Your task to perform on an android device: turn on translation in the chrome app Image 0: 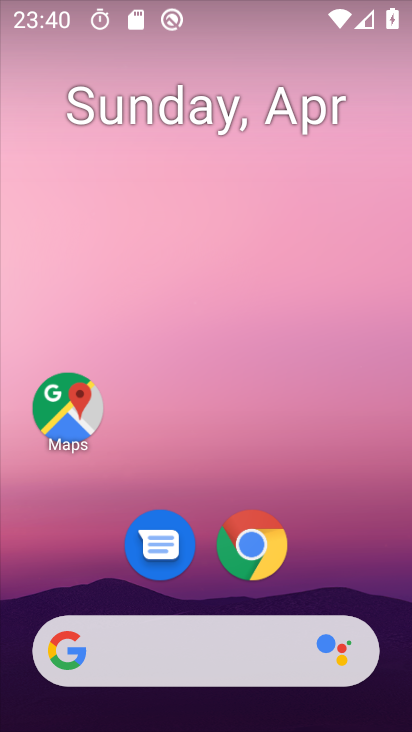
Step 0: drag from (344, 547) to (379, 200)
Your task to perform on an android device: turn on translation in the chrome app Image 1: 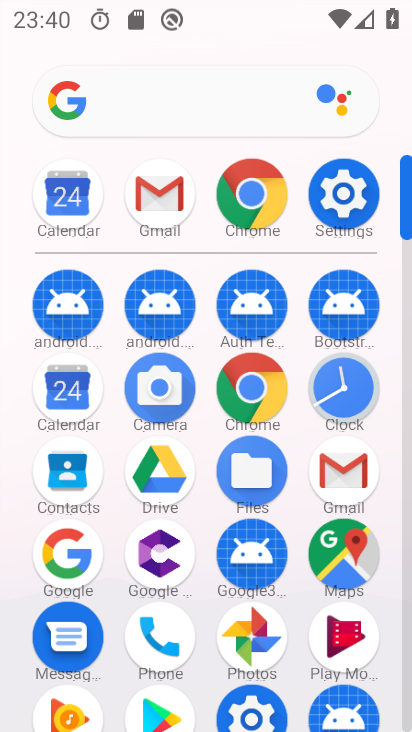
Step 1: click (261, 189)
Your task to perform on an android device: turn on translation in the chrome app Image 2: 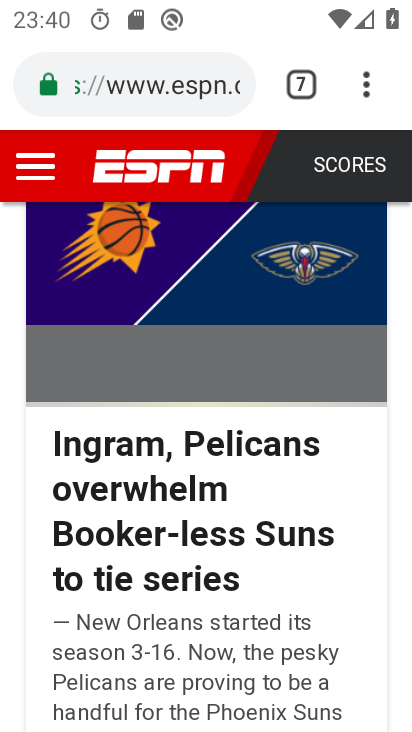
Step 2: click (381, 84)
Your task to perform on an android device: turn on translation in the chrome app Image 3: 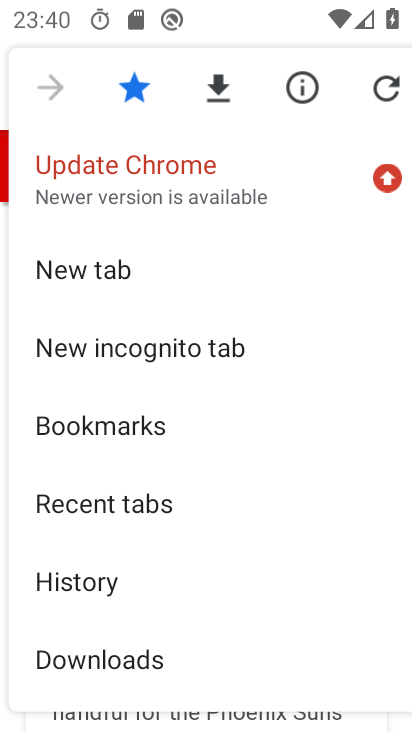
Step 3: drag from (221, 586) to (230, 227)
Your task to perform on an android device: turn on translation in the chrome app Image 4: 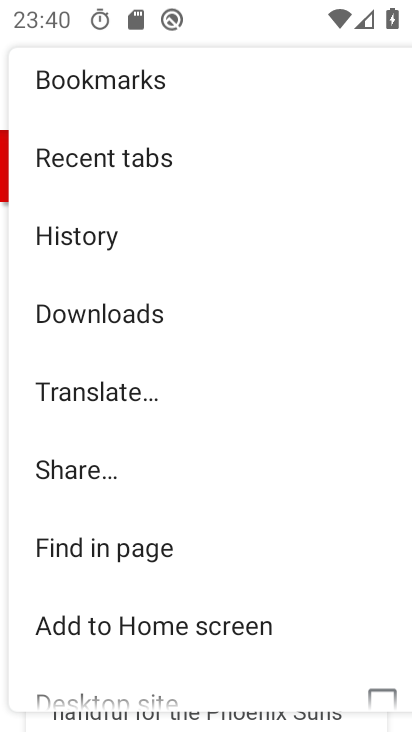
Step 4: drag from (147, 607) to (218, 152)
Your task to perform on an android device: turn on translation in the chrome app Image 5: 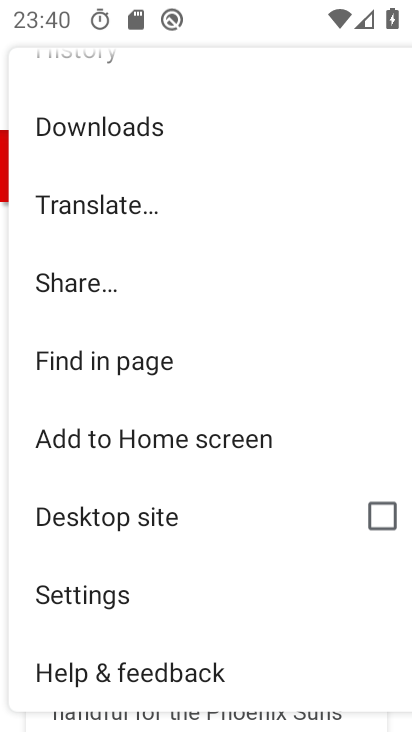
Step 5: click (103, 584)
Your task to perform on an android device: turn on translation in the chrome app Image 6: 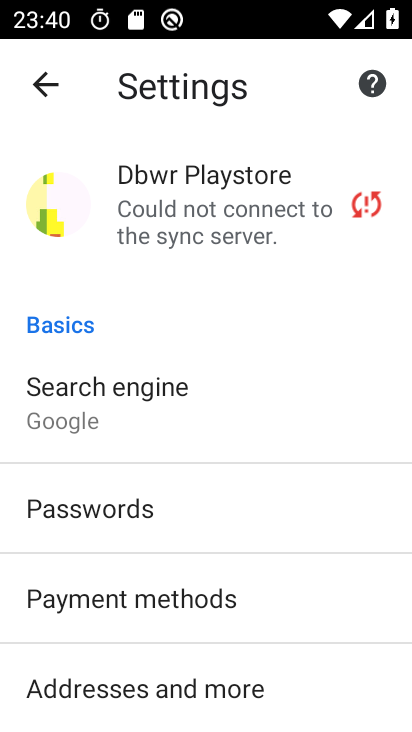
Step 6: drag from (267, 630) to (269, 162)
Your task to perform on an android device: turn on translation in the chrome app Image 7: 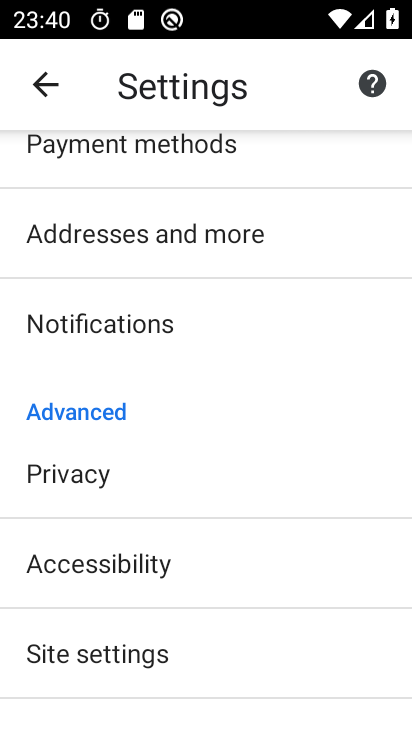
Step 7: drag from (226, 606) to (262, 251)
Your task to perform on an android device: turn on translation in the chrome app Image 8: 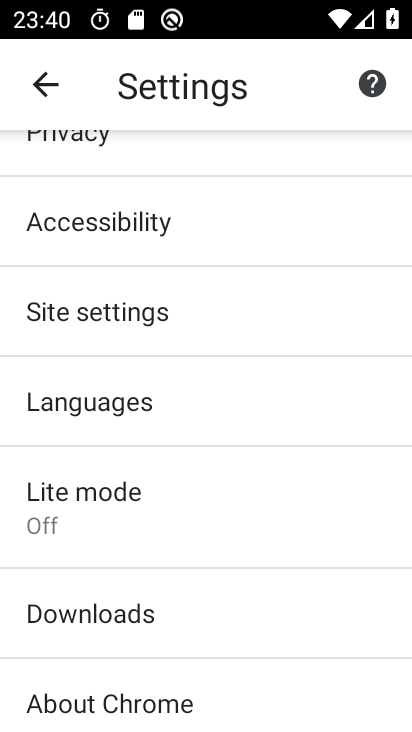
Step 8: drag from (135, 613) to (216, 327)
Your task to perform on an android device: turn on translation in the chrome app Image 9: 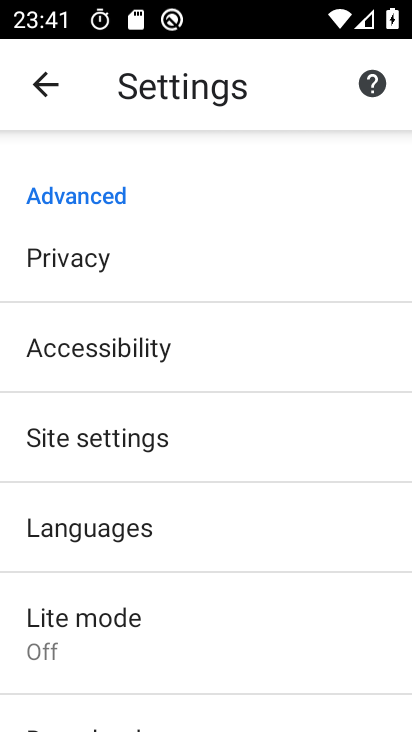
Step 9: click (152, 560)
Your task to perform on an android device: turn on translation in the chrome app Image 10: 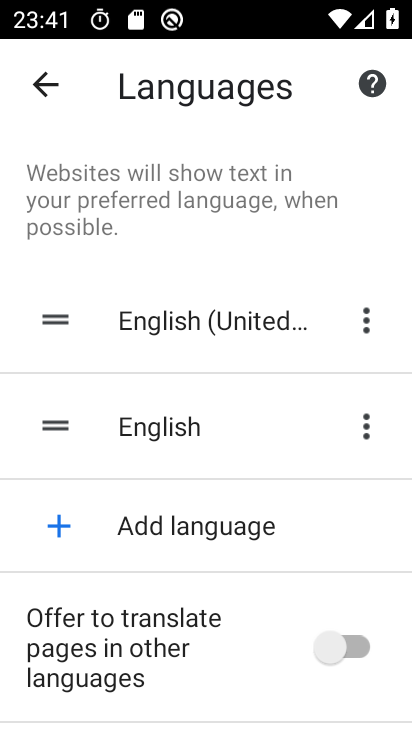
Step 10: click (336, 646)
Your task to perform on an android device: turn on translation in the chrome app Image 11: 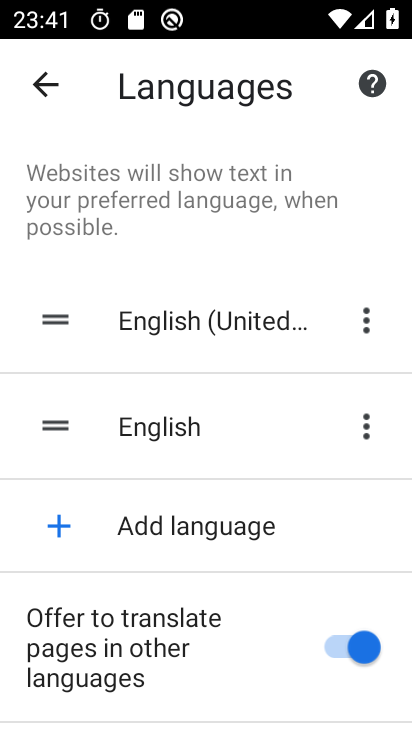
Step 11: task complete